Your task to perform on an android device: open the mobile data screen to see how much data has been used Image 0: 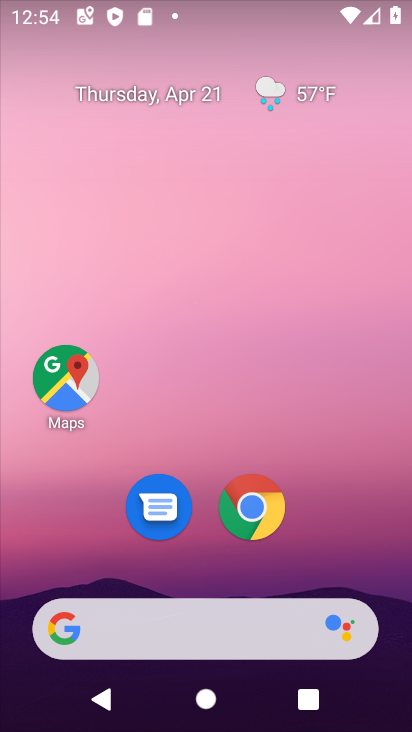
Step 0: drag from (320, 559) to (331, 0)
Your task to perform on an android device: open the mobile data screen to see how much data has been used Image 1: 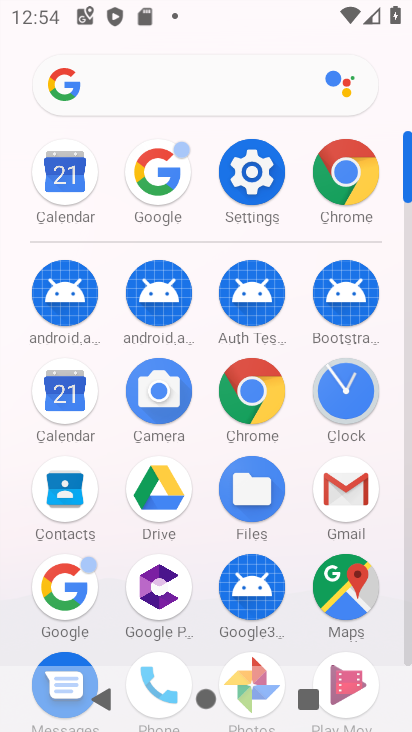
Step 1: click (249, 170)
Your task to perform on an android device: open the mobile data screen to see how much data has been used Image 2: 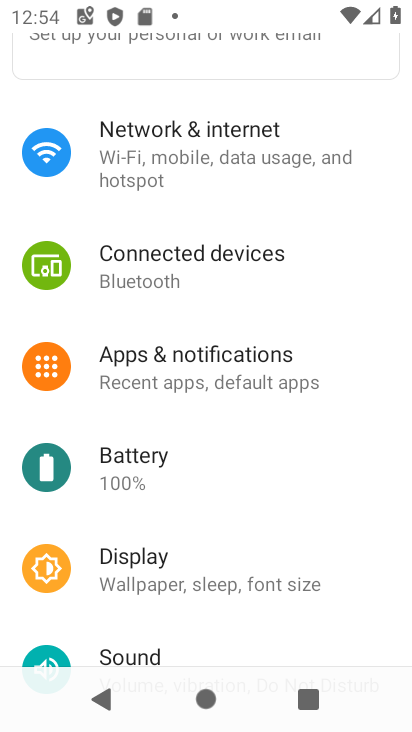
Step 2: click (239, 157)
Your task to perform on an android device: open the mobile data screen to see how much data has been used Image 3: 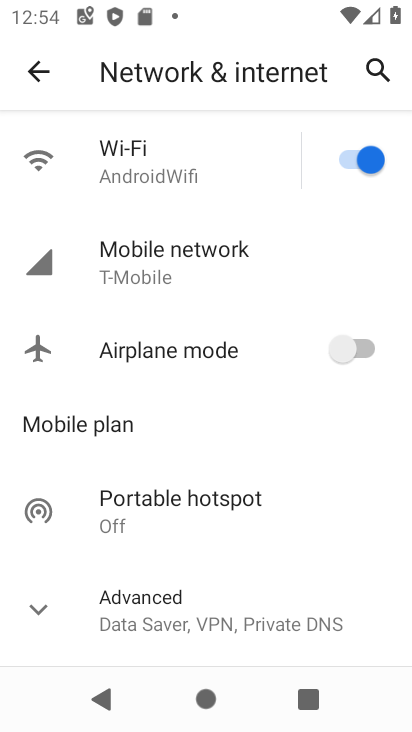
Step 3: click (207, 249)
Your task to perform on an android device: open the mobile data screen to see how much data has been used Image 4: 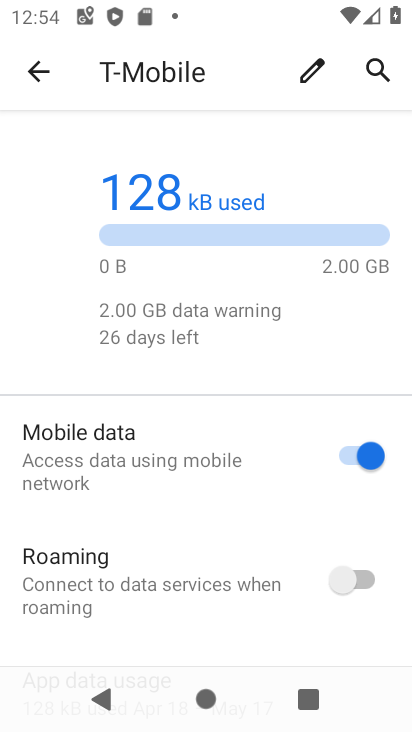
Step 4: task complete